Your task to perform on an android device: check out phone information Image 0: 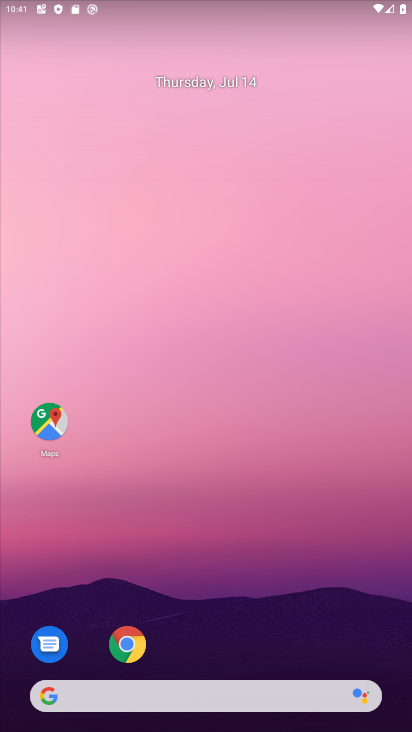
Step 0: drag from (222, 686) to (177, 26)
Your task to perform on an android device: check out phone information Image 1: 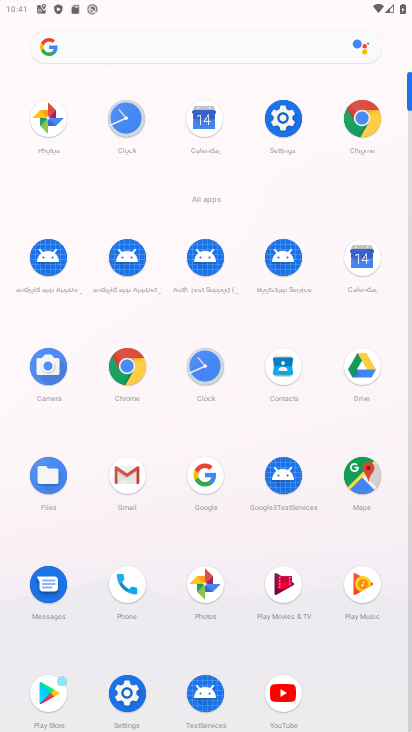
Step 1: click (125, 686)
Your task to perform on an android device: check out phone information Image 2: 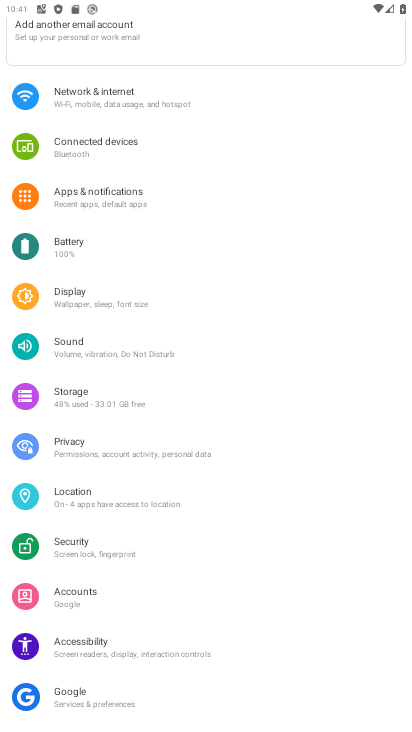
Step 2: drag from (140, 657) to (137, 235)
Your task to perform on an android device: check out phone information Image 3: 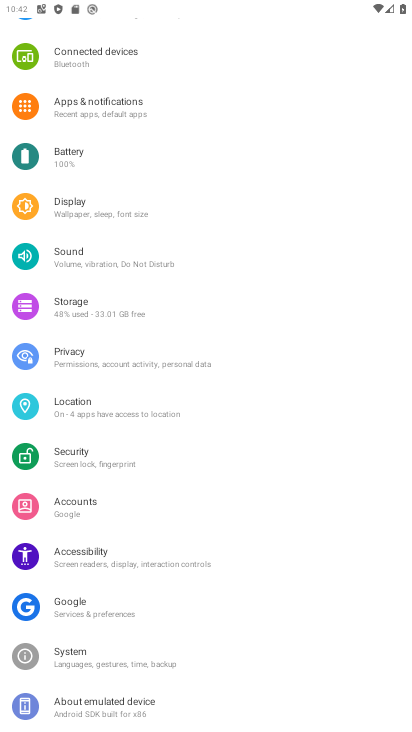
Step 3: click (141, 699)
Your task to perform on an android device: check out phone information Image 4: 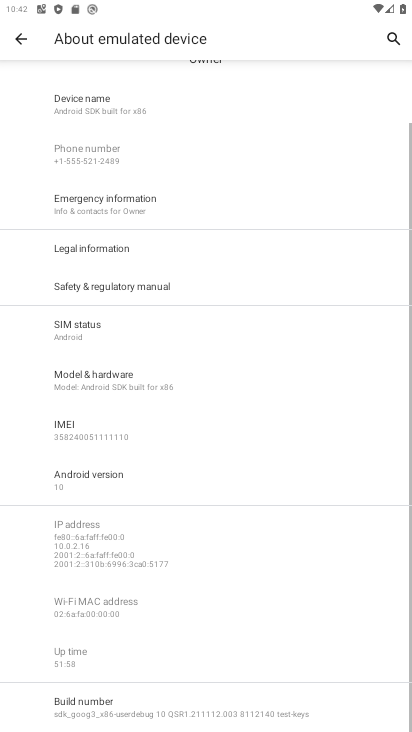
Step 4: task complete